Your task to perform on an android device: Go to sound settings Image 0: 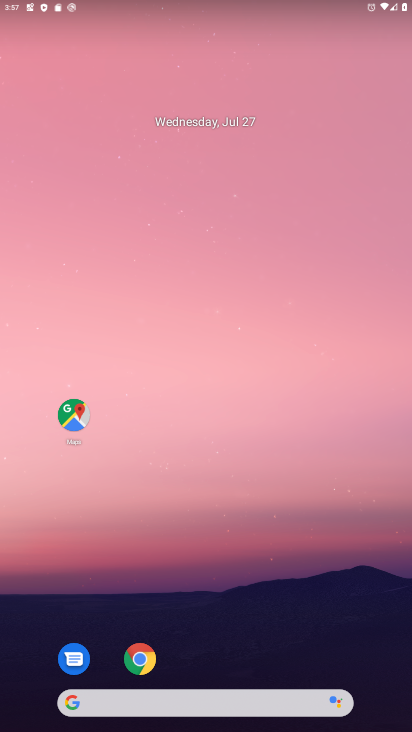
Step 0: drag from (279, 672) to (324, 7)
Your task to perform on an android device: Go to sound settings Image 1: 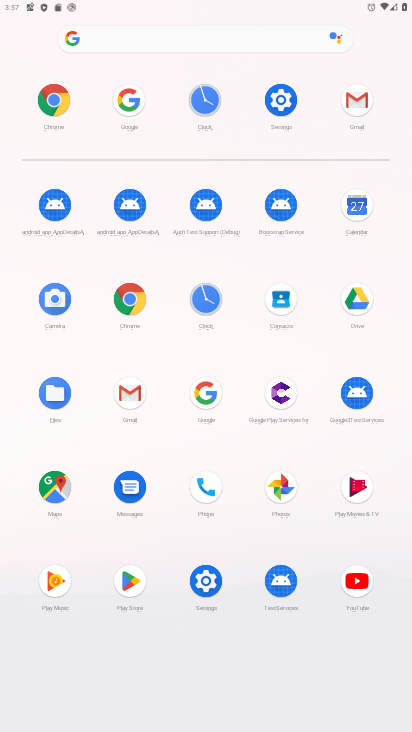
Step 1: click (204, 570)
Your task to perform on an android device: Go to sound settings Image 2: 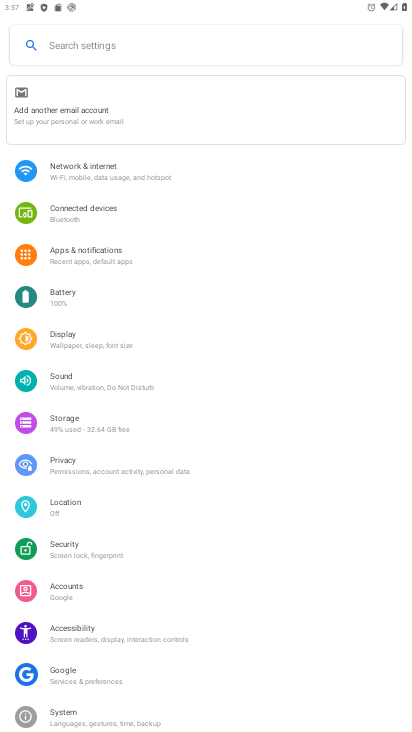
Step 2: click (51, 369)
Your task to perform on an android device: Go to sound settings Image 3: 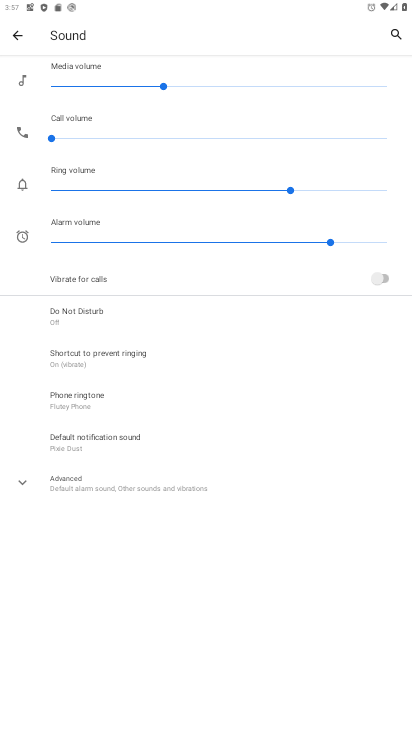
Step 3: task complete